Your task to perform on an android device: see tabs open on other devices in the chrome app Image 0: 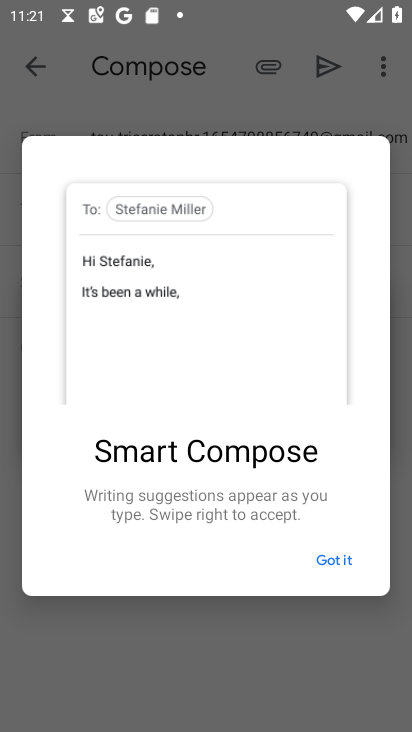
Step 0: press home button
Your task to perform on an android device: see tabs open on other devices in the chrome app Image 1: 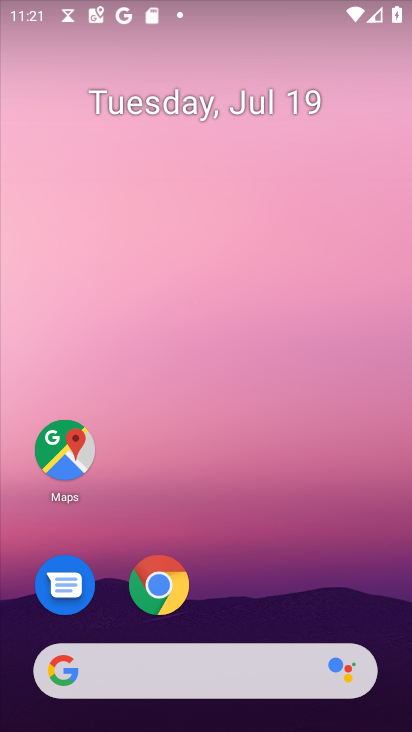
Step 1: click (157, 589)
Your task to perform on an android device: see tabs open on other devices in the chrome app Image 2: 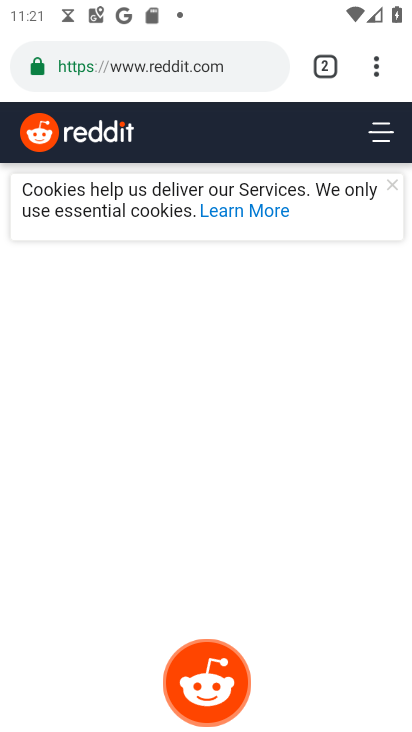
Step 2: task complete